Your task to perform on an android device: Is it going to rain today? Image 0: 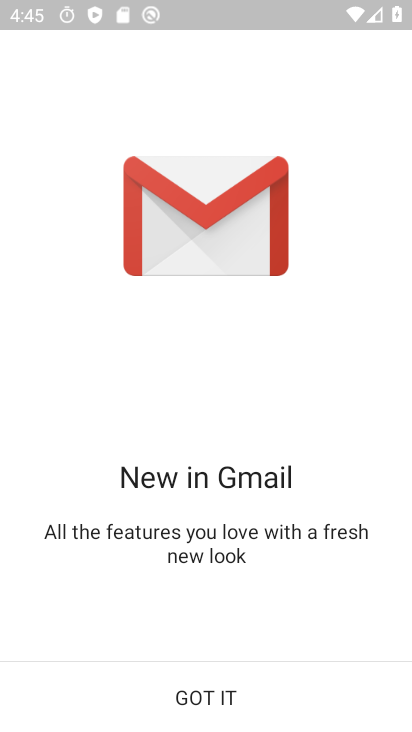
Step 0: press home button
Your task to perform on an android device: Is it going to rain today? Image 1: 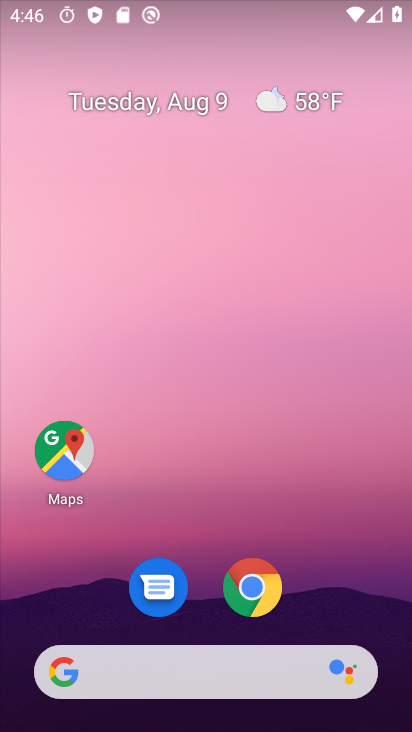
Step 1: click (216, 98)
Your task to perform on an android device: Is it going to rain today? Image 2: 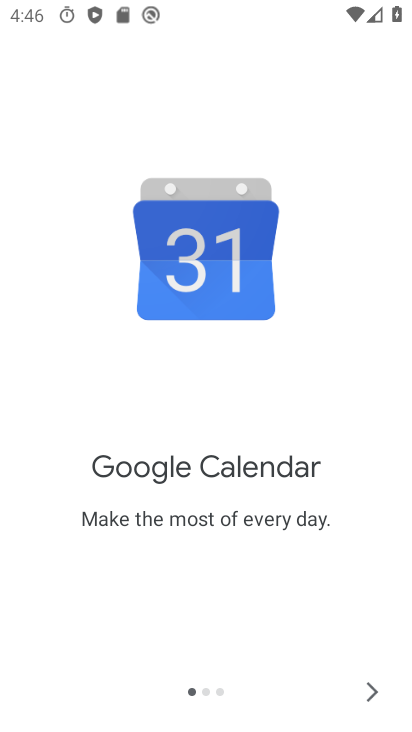
Step 2: click (374, 681)
Your task to perform on an android device: Is it going to rain today? Image 3: 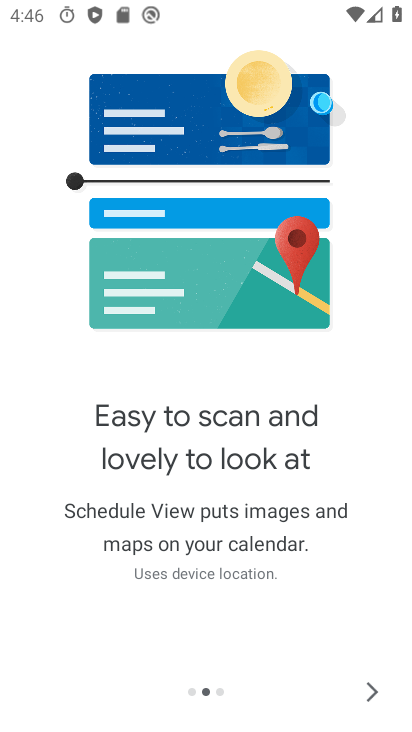
Step 3: click (368, 686)
Your task to perform on an android device: Is it going to rain today? Image 4: 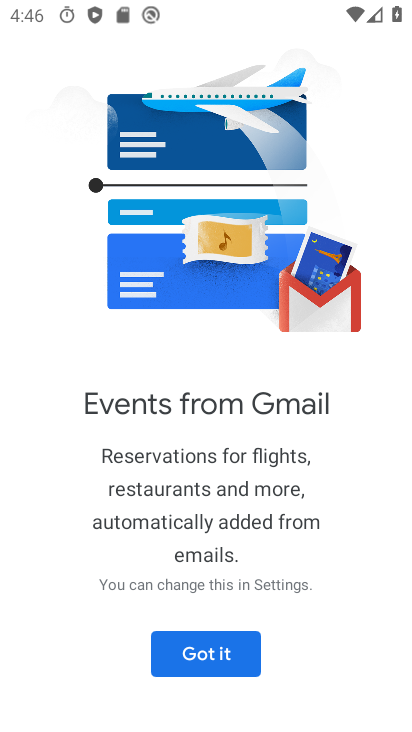
Step 4: click (214, 658)
Your task to perform on an android device: Is it going to rain today? Image 5: 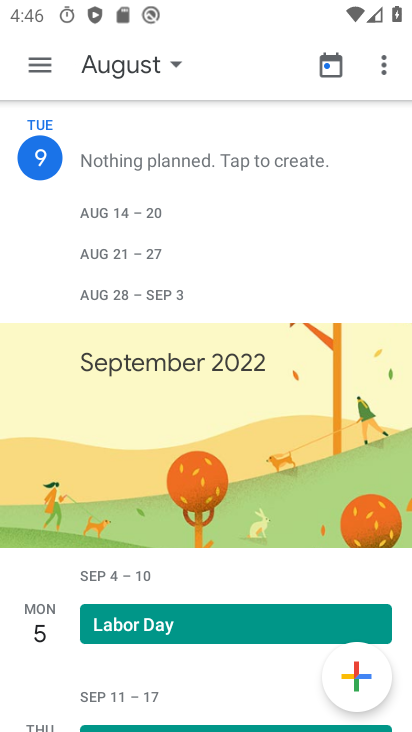
Step 5: press home button
Your task to perform on an android device: Is it going to rain today? Image 6: 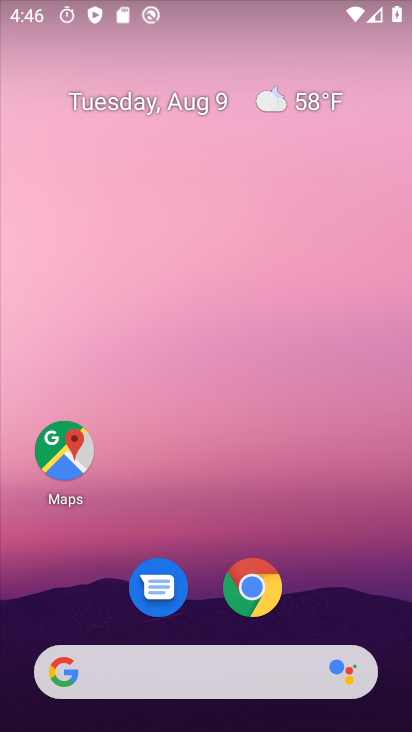
Step 6: click (303, 91)
Your task to perform on an android device: Is it going to rain today? Image 7: 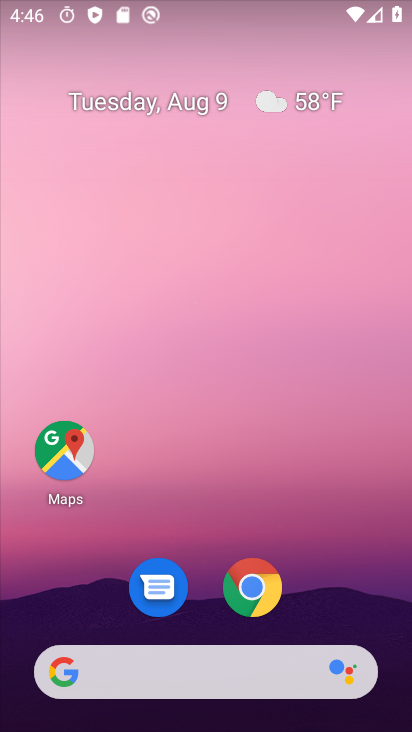
Step 7: click (303, 91)
Your task to perform on an android device: Is it going to rain today? Image 8: 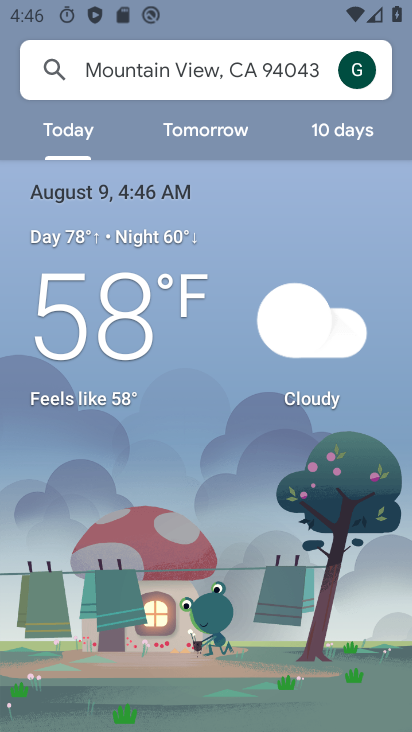
Step 8: task complete